Your task to perform on an android device: check battery use Image 0: 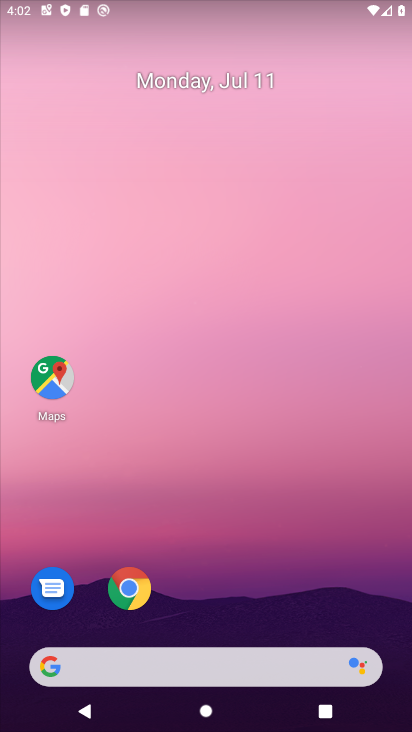
Step 0: drag from (361, 602) to (351, 152)
Your task to perform on an android device: check battery use Image 1: 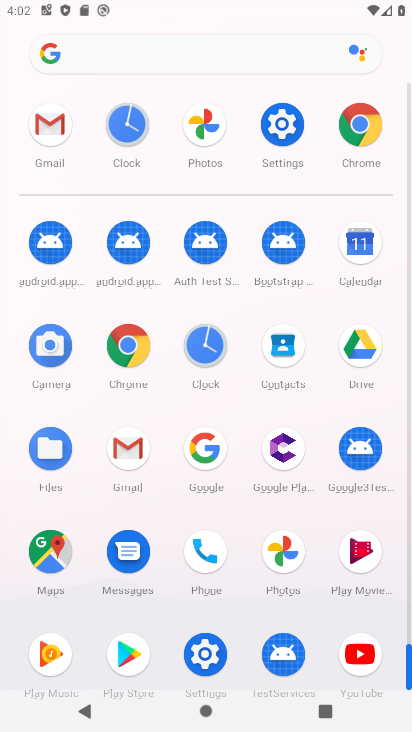
Step 1: click (298, 146)
Your task to perform on an android device: check battery use Image 2: 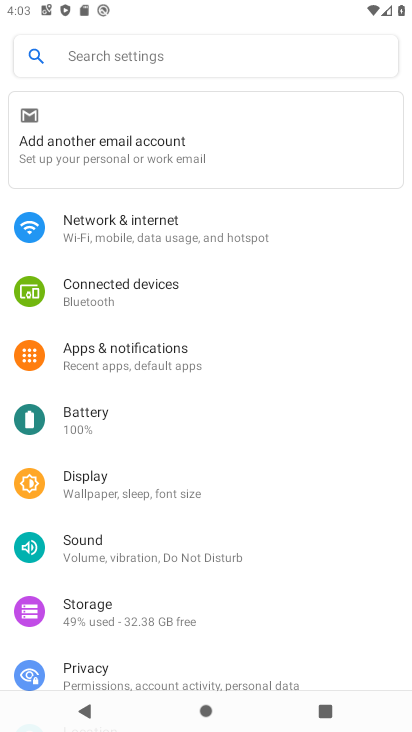
Step 2: drag from (324, 354) to (327, 276)
Your task to perform on an android device: check battery use Image 3: 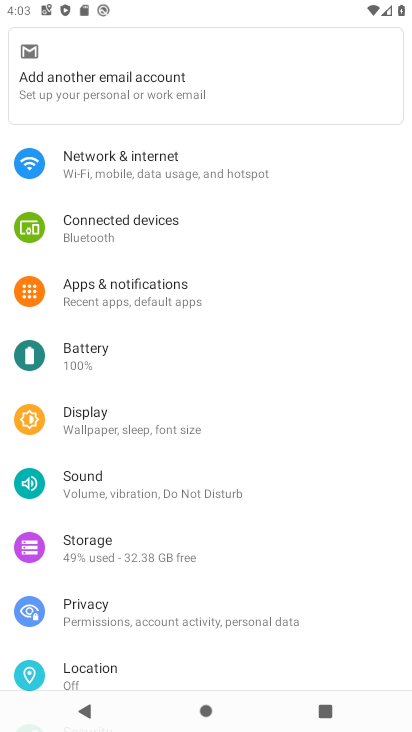
Step 3: drag from (339, 404) to (343, 308)
Your task to perform on an android device: check battery use Image 4: 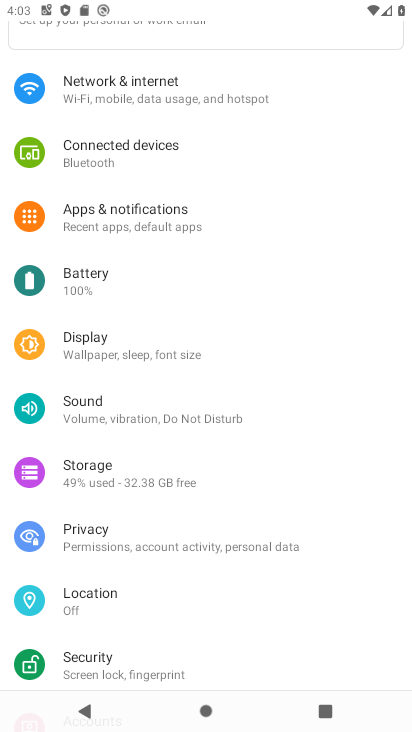
Step 4: drag from (339, 443) to (342, 351)
Your task to perform on an android device: check battery use Image 5: 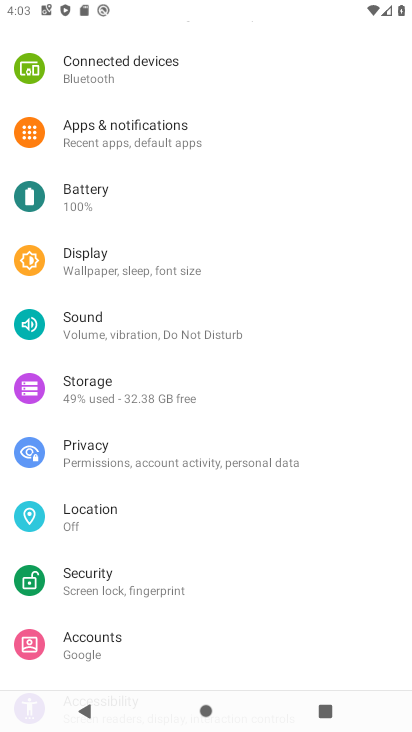
Step 5: drag from (347, 453) to (344, 334)
Your task to perform on an android device: check battery use Image 6: 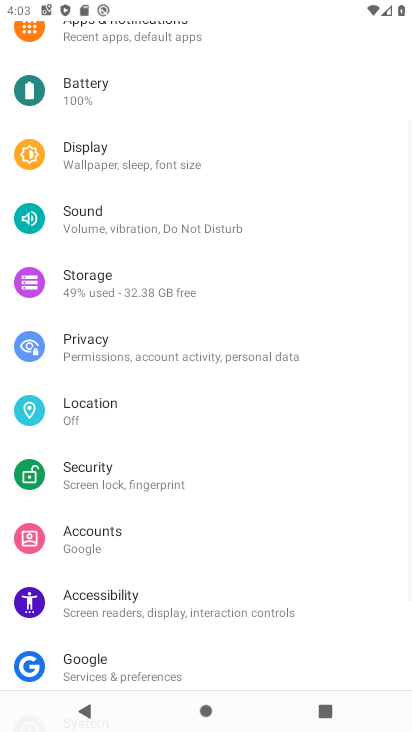
Step 6: drag from (338, 482) to (335, 350)
Your task to perform on an android device: check battery use Image 7: 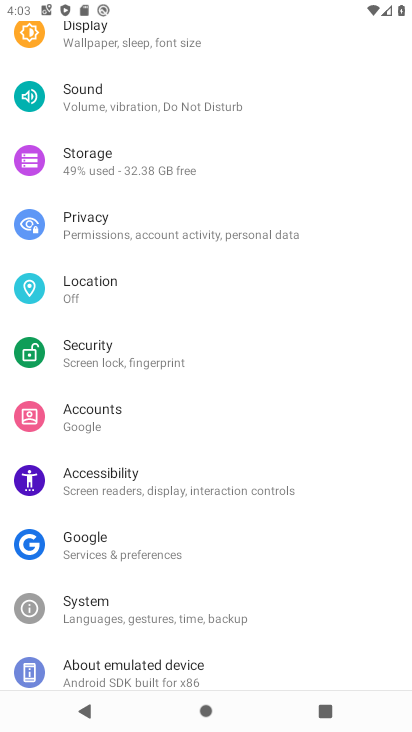
Step 7: drag from (335, 499) to (332, 361)
Your task to perform on an android device: check battery use Image 8: 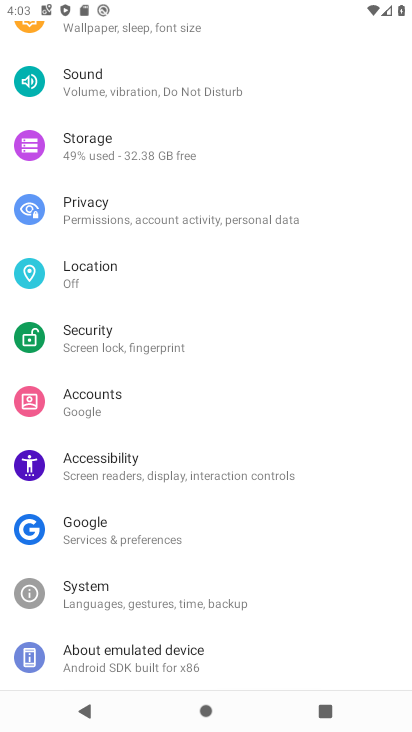
Step 8: drag from (330, 293) to (333, 407)
Your task to perform on an android device: check battery use Image 9: 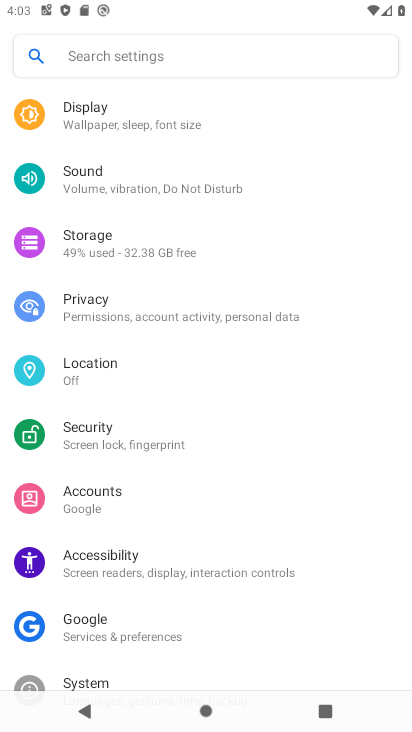
Step 9: drag from (340, 288) to (343, 394)
Your task to perform on an android device: check battery use Image 10: 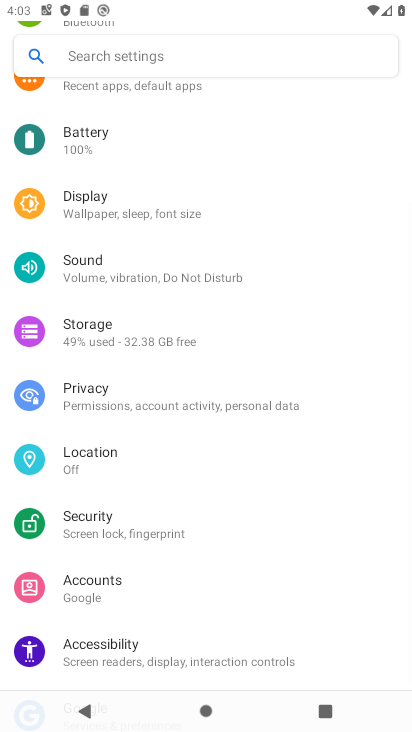
Step 10: drag from (343, 263) to (332, 383)
Your task to perform on an android device: check battery use Image 11: 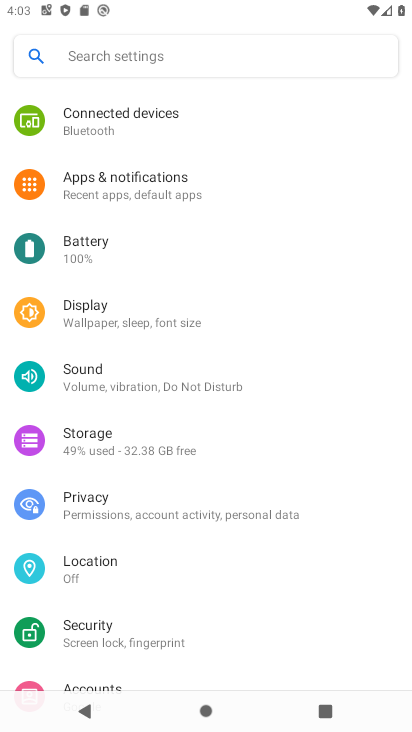
Step 11: drag from (331, 245) to (340, 382)
Your task to perform on an android device: check battery use Image 12: 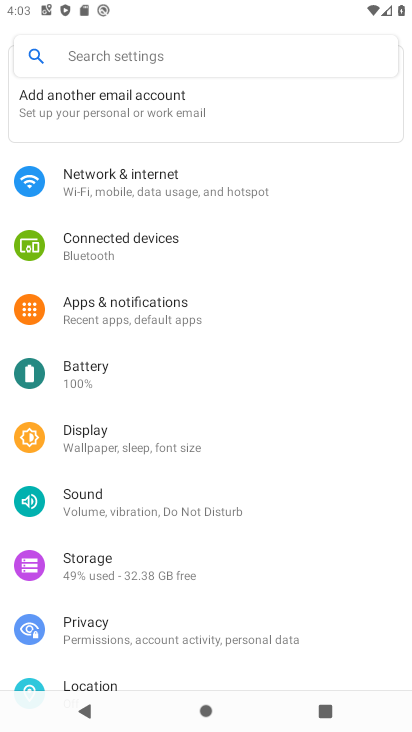
Step 12: drag from (338, 229) to (348, 375)
Your task to perform on an android device: check battery use Image 13: 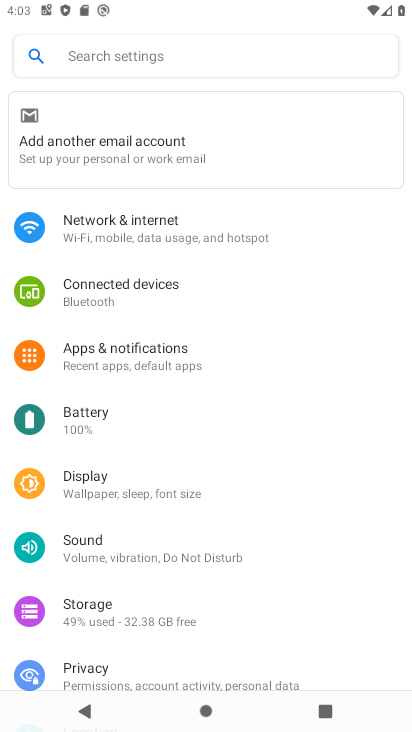
Step 13: click (124, 425)
Your task to perform on an android device: check battery use Image 14: 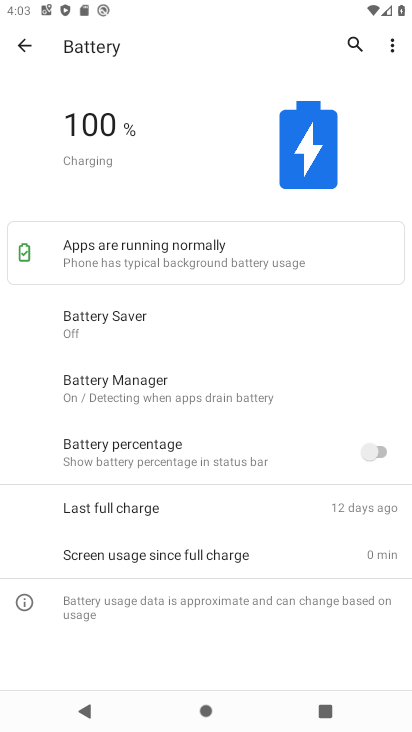
Step 14: click (392, 54)
Your task to perform on an android device: check battery use Image 15: 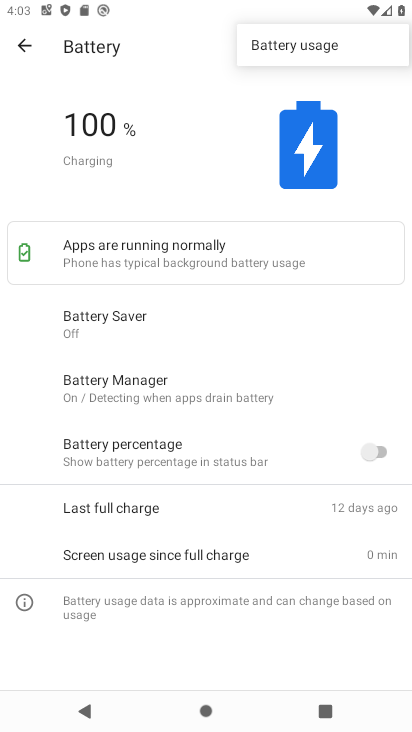
Step 15: click (325, 48)
Your task to perform on an android device: check battery use Image 16: 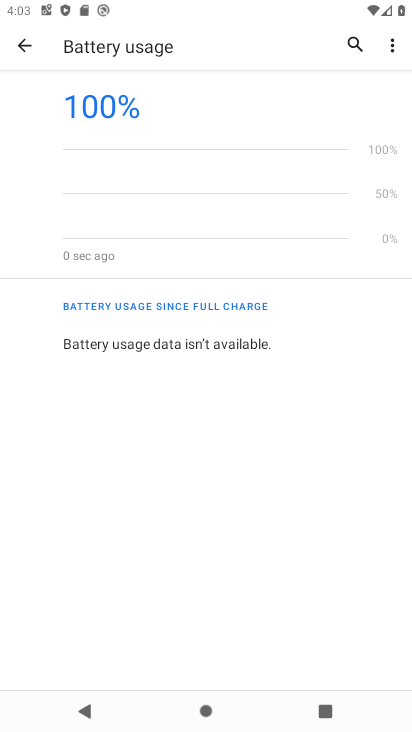
Step 16: task complete